Your task to perform on an android device: open app "Pinterest" (install if not already installed) Image 0: 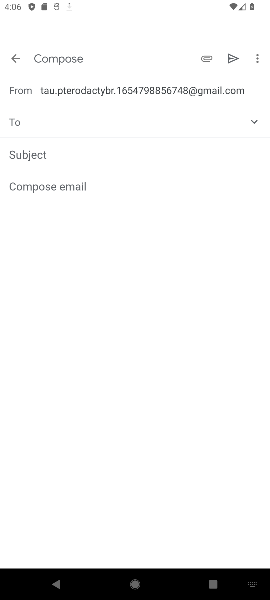
Step 0: drag from (187, 373) to (186, 149)
Your task to perform on an android device: open app "Pinterest" (install if not already installed) Image 1: 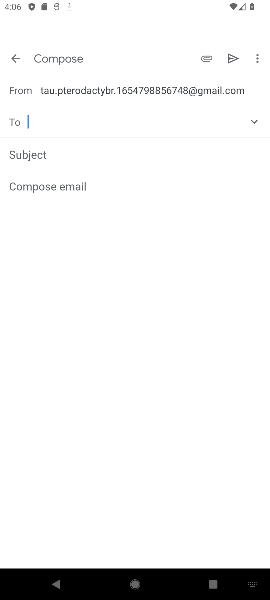
Step 1: drag from (68, 320) to (133, 125)
Your task to perform on an android device: open app "Pinterest" (install if not already installed) Image 2: 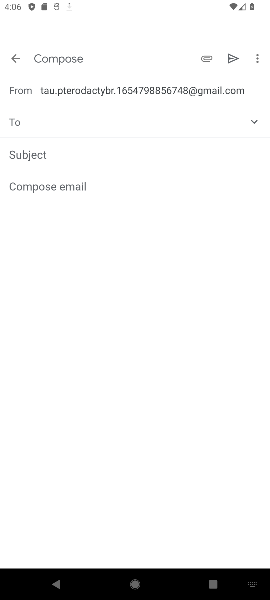
Step 2: press home button
Your task to perform on an android device: open app "Pinterest" (install if not already installed) Image 3: 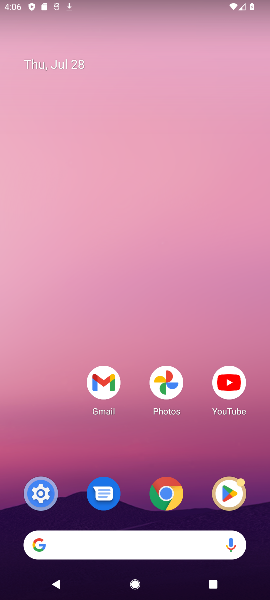
Step 3: drag from (123, 503) to (148, 115)
Your task to perform on an android device: open app "Pinterest" (install if not already installed) Image 4: 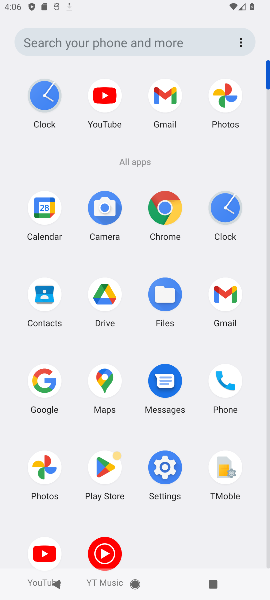
Step 4: click (92, 457)
Your task to perform on an android device: open app "Pinterest" (install if not already installed) Image 5: 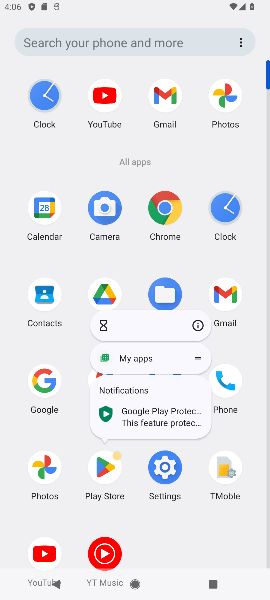
Step 5: click (199, 320)
Your task to perform on an android device: open app "Pinterest" (install if not already installed) Image 6: 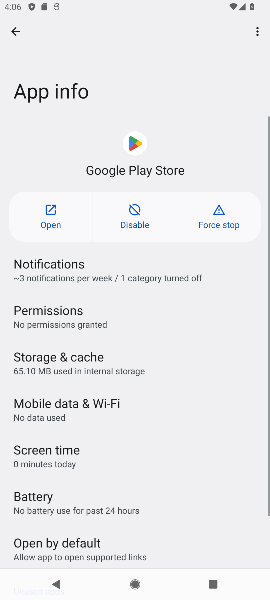
Step 6: click (54, 213)
Your task to perform on an android device: open app "Pinterest" (install if not already installed) Image 7: 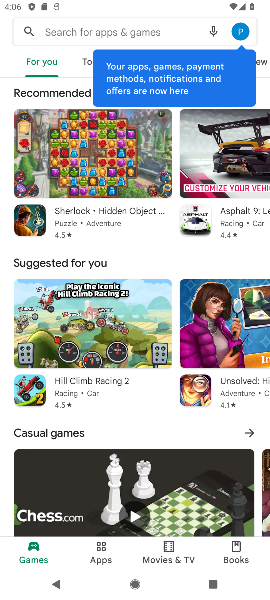
Step 7: click (107, 33)
Your task to perform on an android device: open app "Pinterest" (install if not already installed) Image 8: 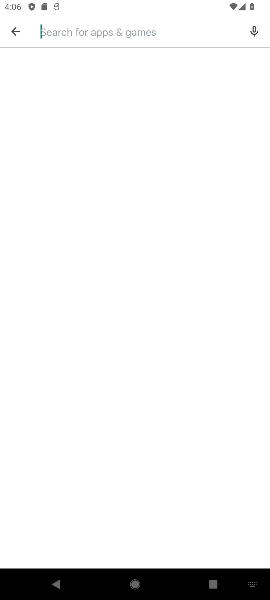
Step 8: type "Pinterest"
Your task to perform on an android device: open app "Pinterest" (install if not already installed) Image 9: 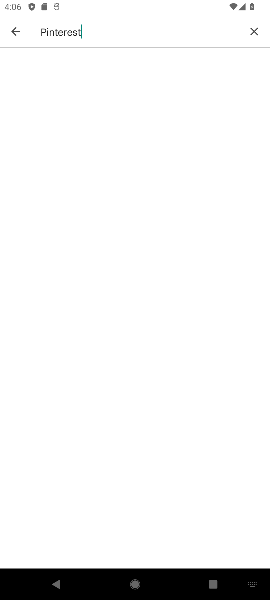
Step 9: type ""
Your task to perform on an android device: open app "Pinterest" (install if not already installed) Image 10: 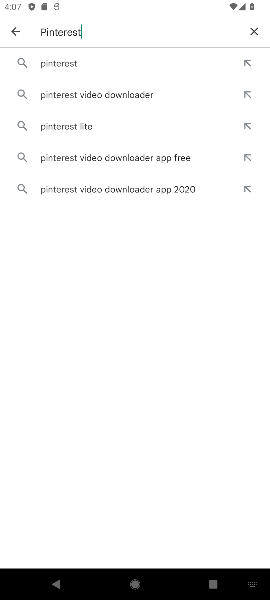
Step 10: click (79, 65)
Your task to perform on an android device: open app "Pinterest" (install if not already installed) Image 11: 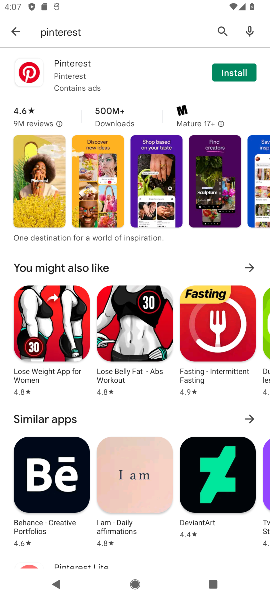
Step 11: click (217, 69)
Your task to perform on an android device: open app "Pinterest" (install if not already installed) Image 12: 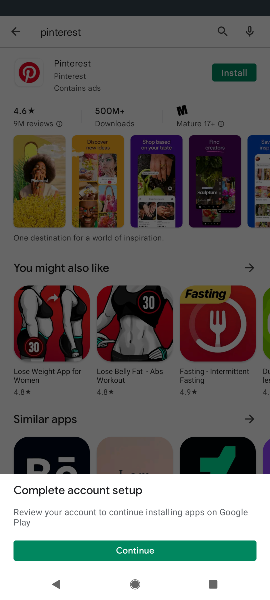
Step 12: click (100, 547)
Your task to perform on an android device: open app "Pinterest" (install if not already installed) Image 13: 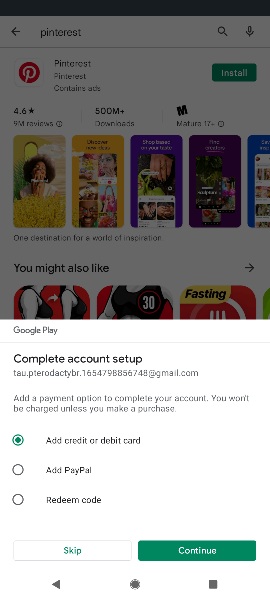
Step 13: click (40, 554)
Your task to perform on an android device: open app "Pinterest" (install if not already installed) Image 14: 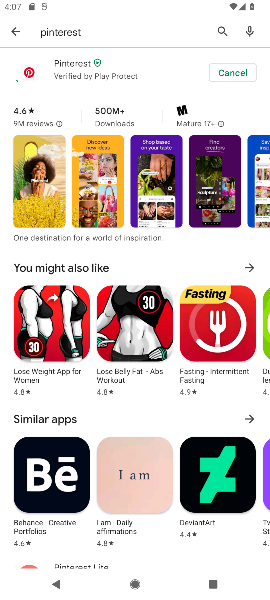
Step 14: click (83, 74)
Your task to perform on an android device: open app "Pinterest" (install if not already installed) Image 15: 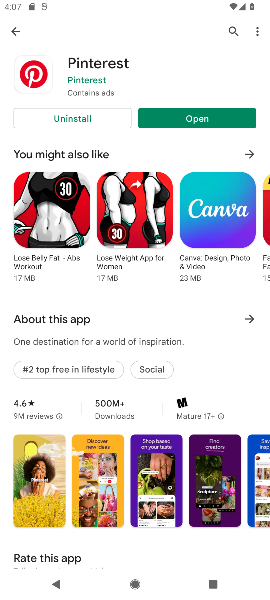
Step 15: click (188, 120)
Your task to perform on an android device: open app "Pinterest" (install if not already installed) Image 16: 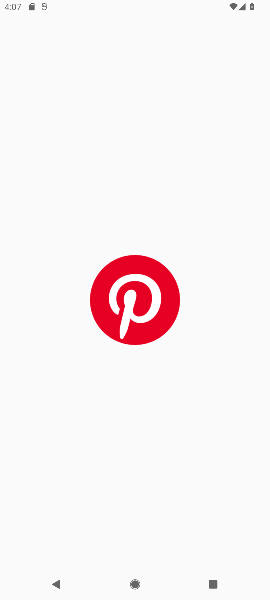
Step 16: task complete